Your task to perform on an android device: turn off location Image 0: 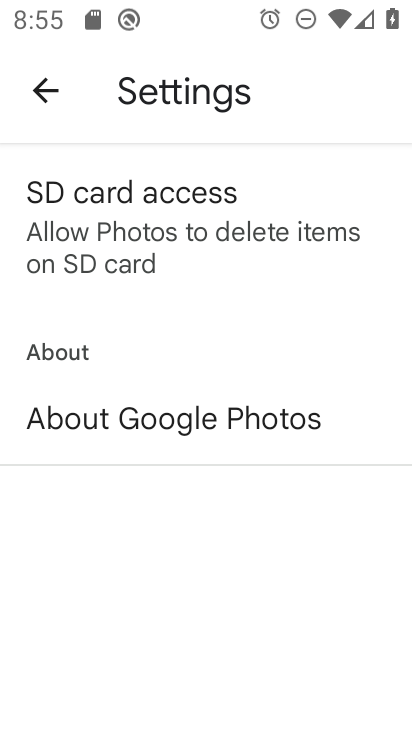
Step 0: press home button
Your task to perform on an android device: turn off location Image 1: 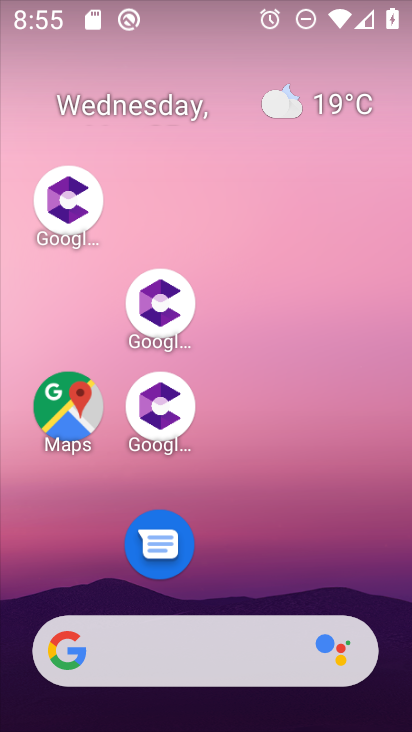
Step 1: drag from (277, 538) to (199, 118)
Your task to perform on an android device: turn off location Image 2: 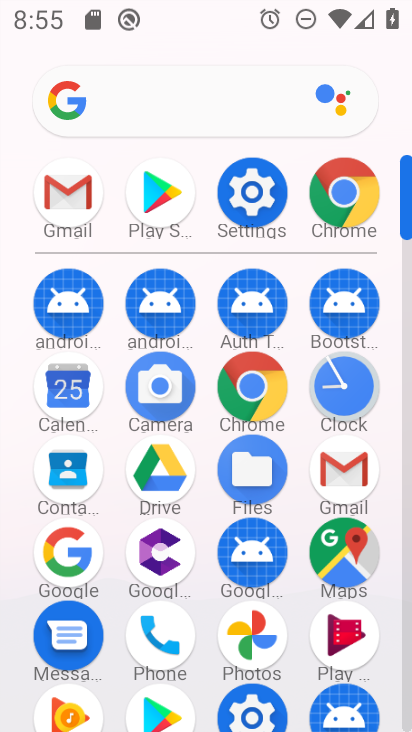
Step 2: click (265, 190)
Your task to perform on an android device: turn off location Image 3: 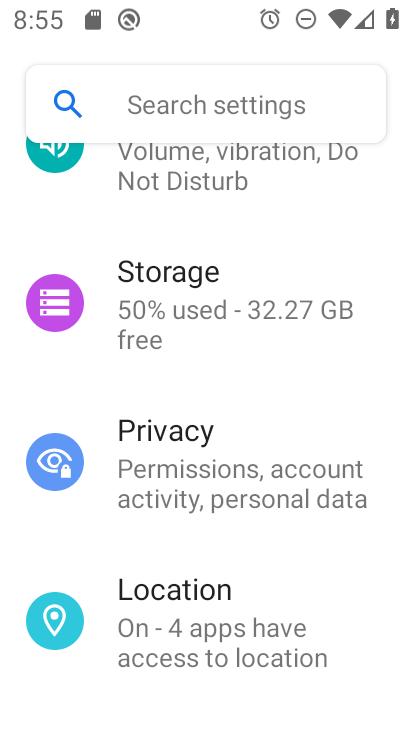
Step 3: click (205, 590)
Your task to perform on an android device: turn off location Image 4: 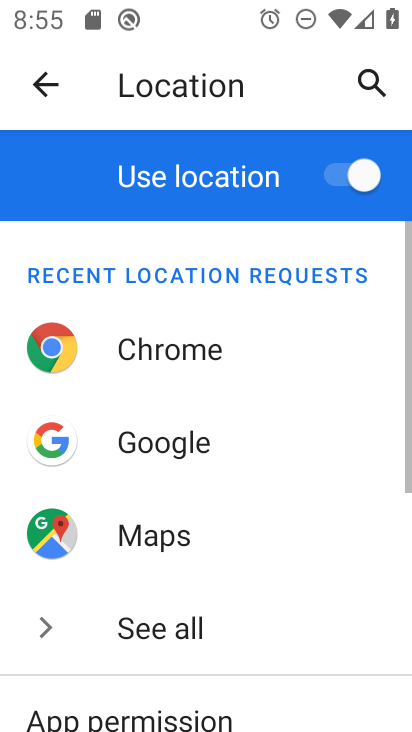
Step 4: click (350, 176)
Your task to perform on an android device: turn off location Image 5: 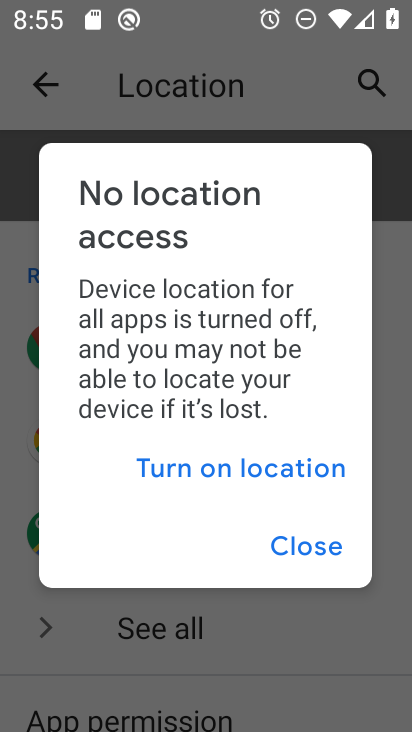
Step 5: click (292, 556)
Your task to perform on an android device: turn off location Image 6: 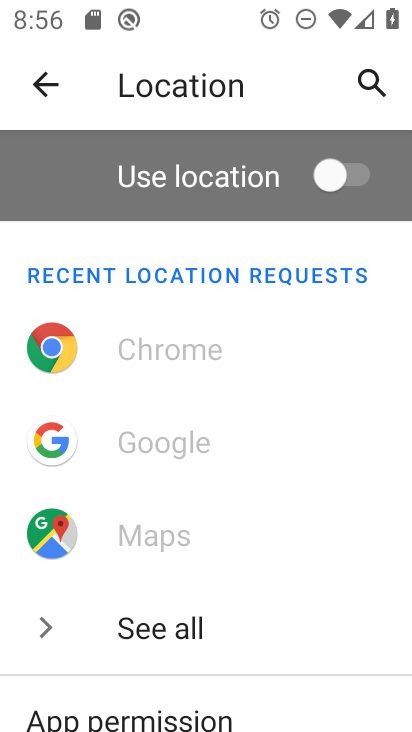
Step 6: task complete